Your task to perform on an android device: Open Amazon Image 0: 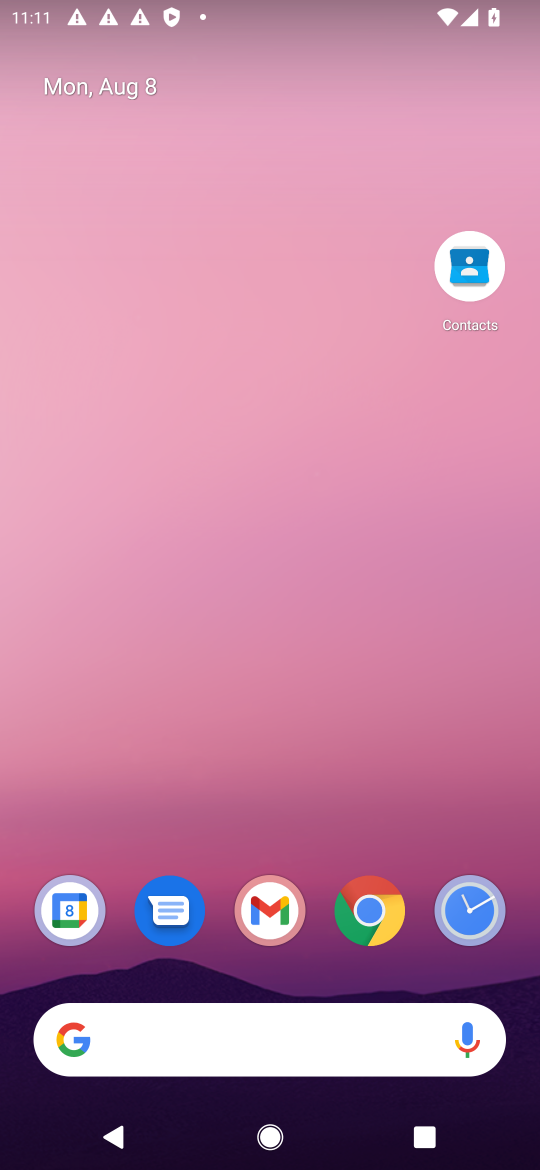
Step 0: drag from (278, 982) to (388, 93)
Your task to perform on an android device: Open Amazon Image 1: 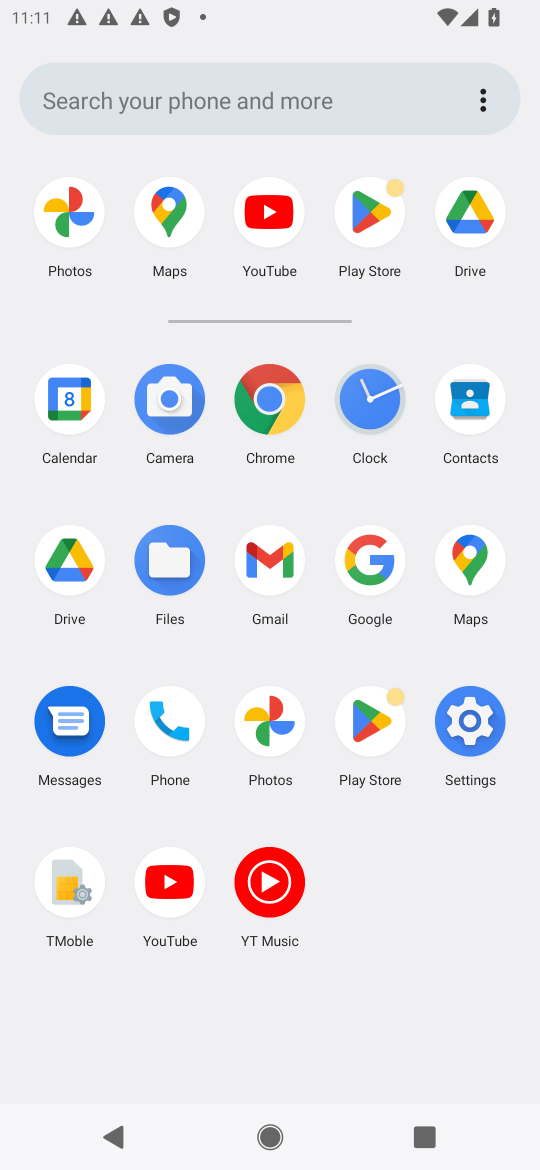
Step 1: click (272, 384)
Your task to perform on an android device: Open Amazon Image 2: 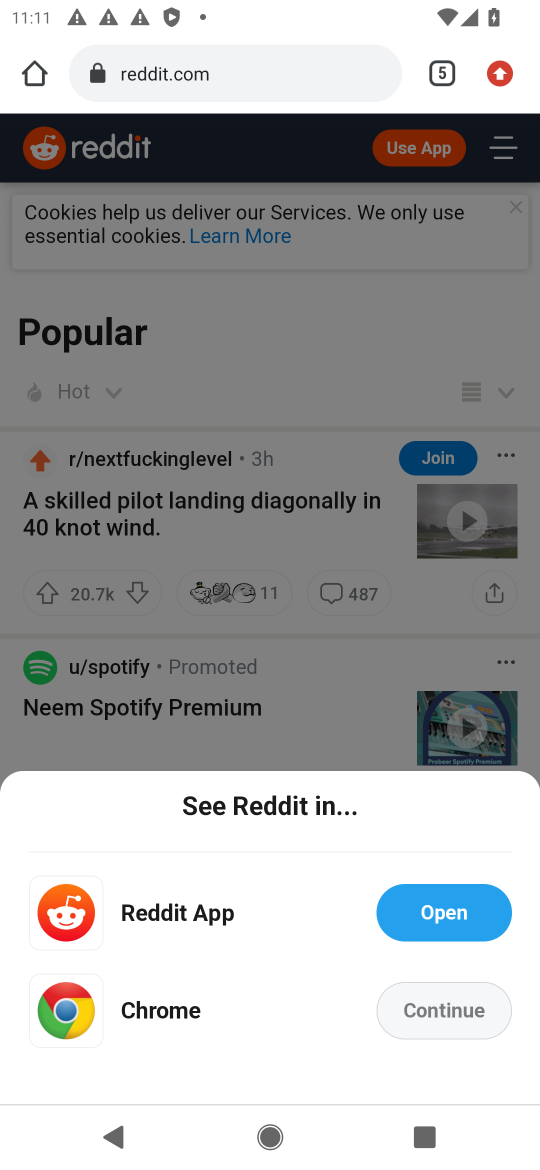
Step 2: click (439, 66)
Your task to perform on an android device: Open Amazon Image 3: 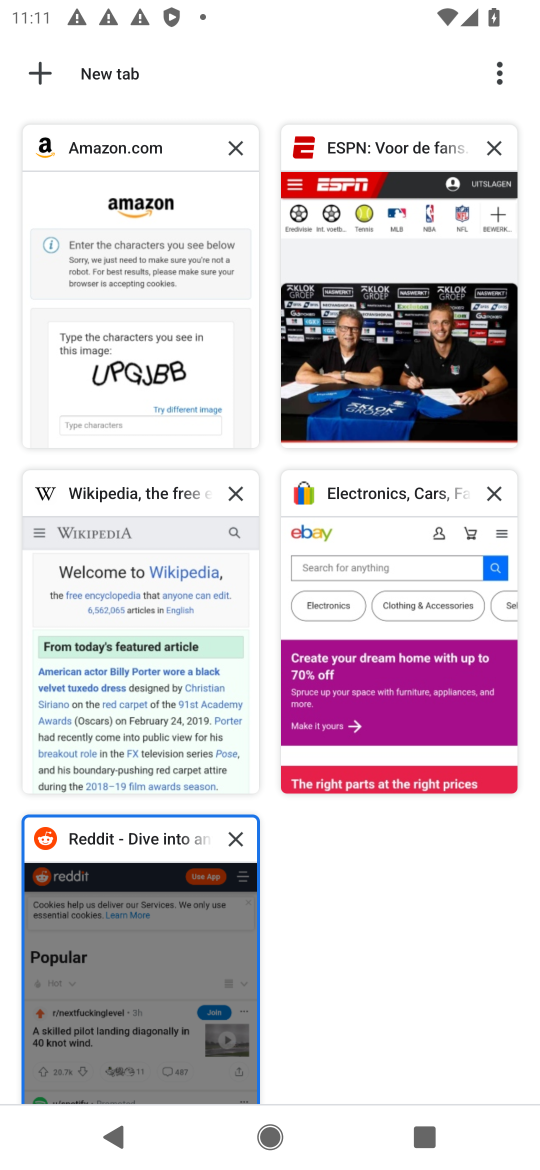
Step 3: click (429, 66)
Your task to perform on an android device: Open Amazon Image 4: 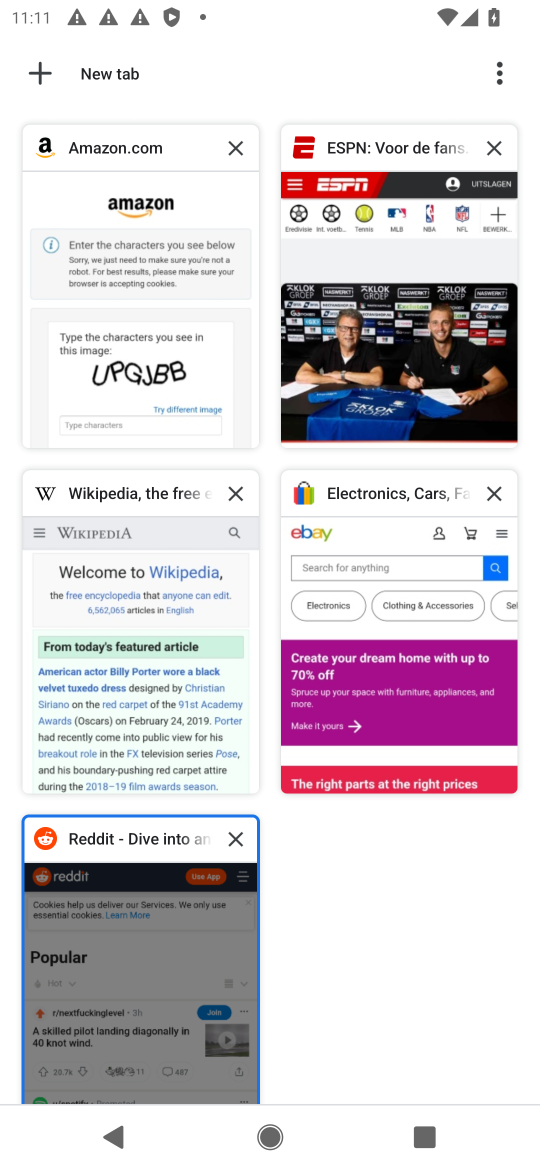
Step 4: click (23, 52)
Your task to perform on an android device: Open Amazon Image 5: 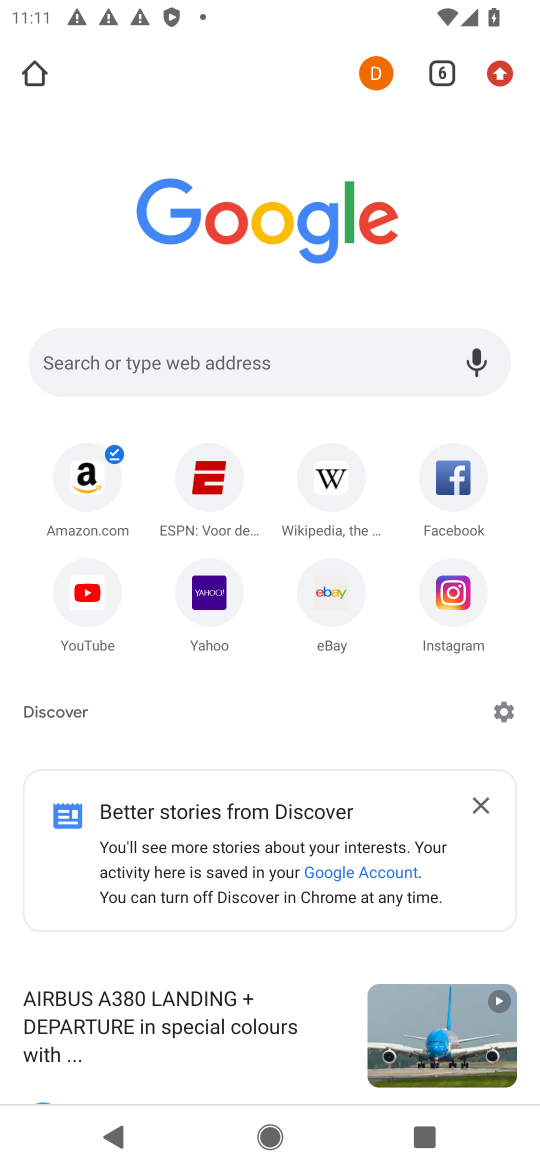
Step 5: click (103, 443)
Your task to perform on an android device: Open Amazon Image 6: 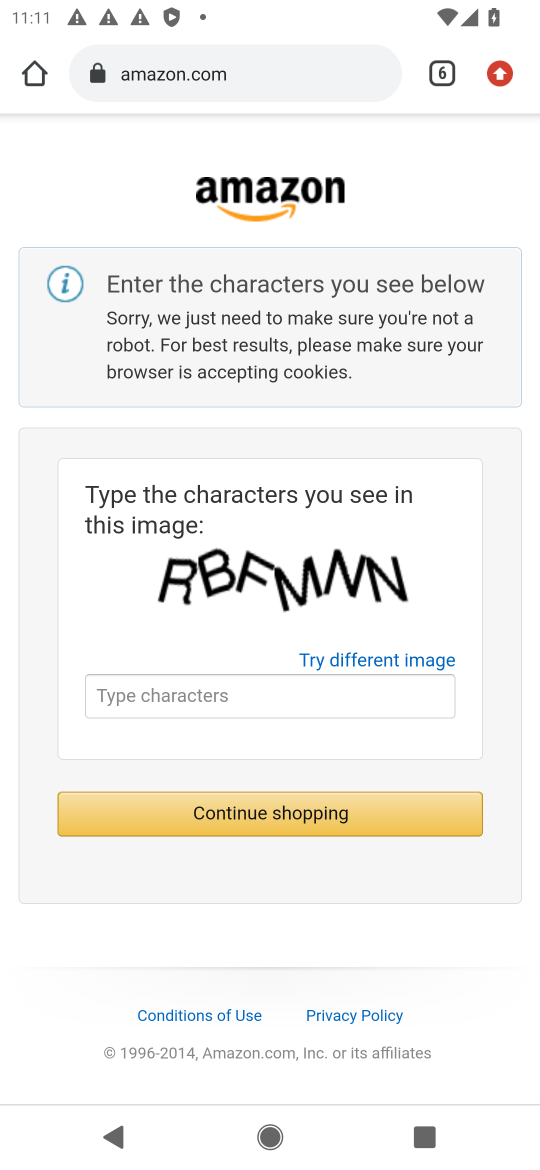
Step 6: task complete